Your task to perform on an android device: read, delete, or share a saved page in the chrome app Image 0: 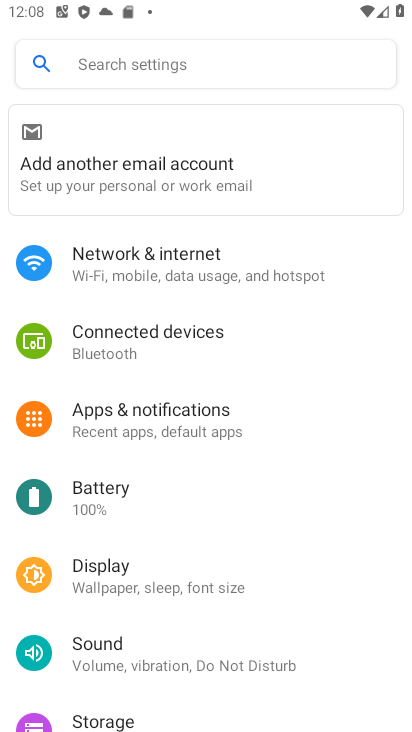
Step 0: task complete